Your task to perform on an android device: check google app version Image 0: 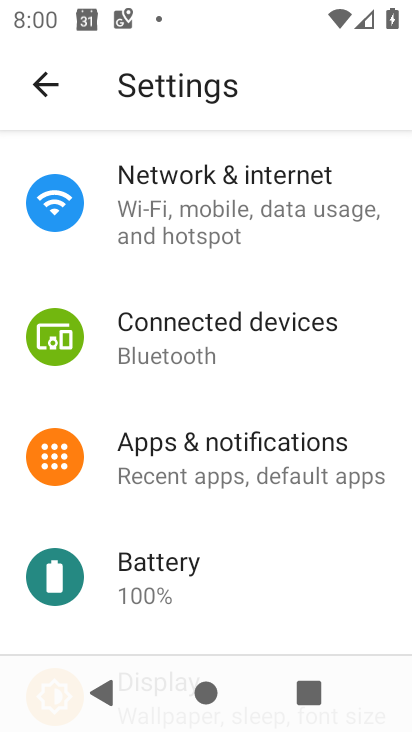
Step 0: press home button
Your task to perform on an android device: check google app version Image 1: 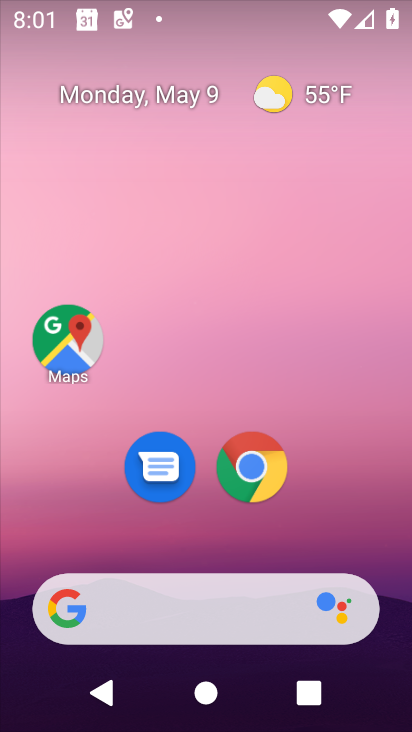
Step 1: drag from (355, 547) to (315, 96)
Your task to perform on an android device: check google app version Image 2: 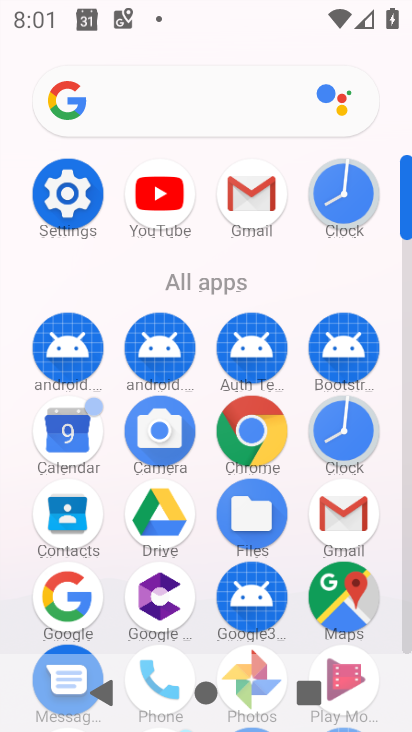
Step 2: click (406, 523)
Your task to perform on an android device: check google app version Image 3: 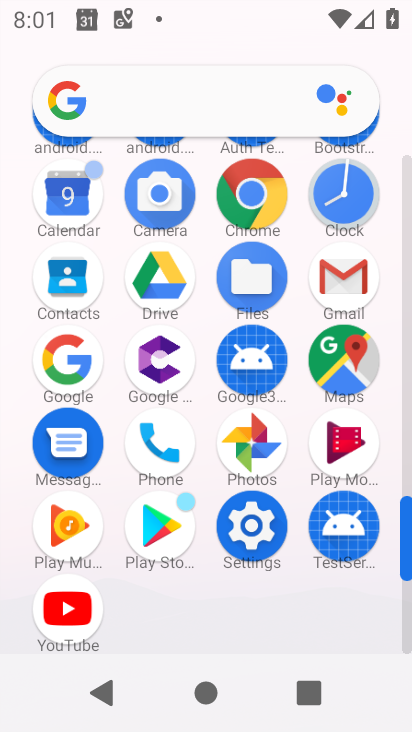
Step 3: click (58, 370)
Your task to perform on an android device: check google app version Image 4: 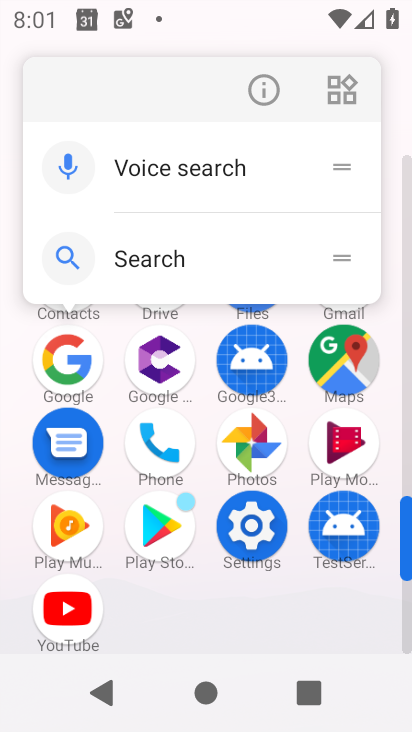
Step 4: click (265, 98)
Your task to perform on an android device: check google app version Image 5: 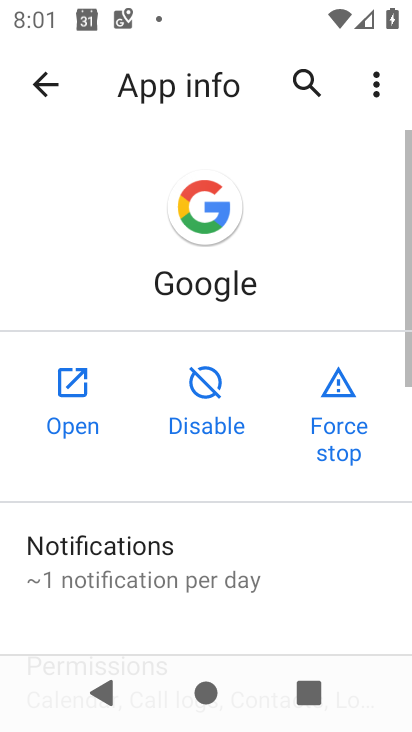
Step 5: drag from (246, 569) to (221, 206)
Your task to perform on an android device: check google app version Image 6: 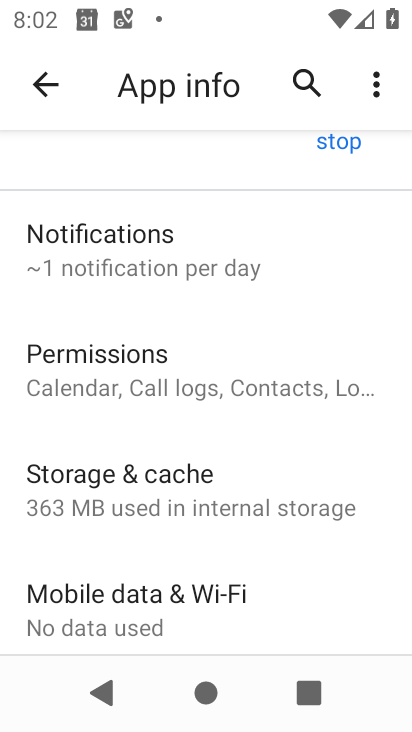
Step 6: drag from (171, 595) to (151, 171)
Your task to perform on an android device: check google app version Image 7: 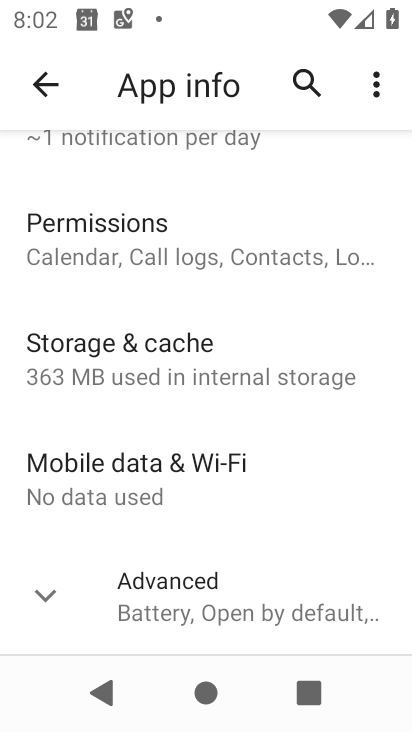
Step 7: click (47, 600)
Your task to perform on an android device: check google app version Image 8: 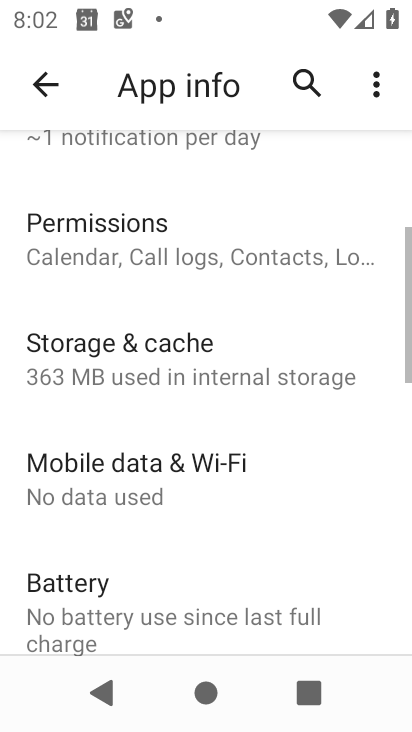
Step 8: task complete